Your task to perform on an android device: Do I have any events today? Image 0: 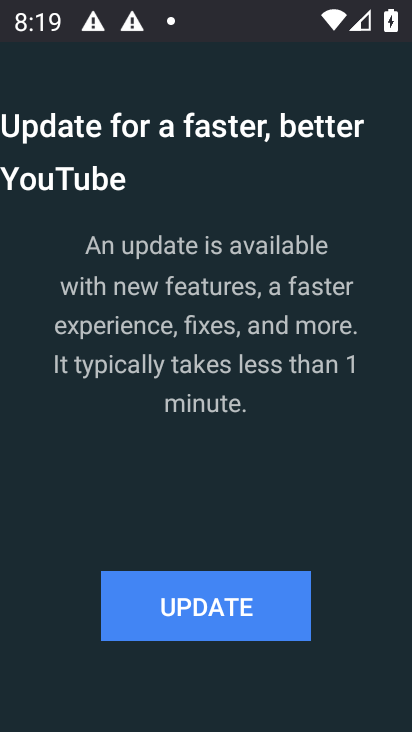
Step 0: press home button
Your task to perform on an android device: Do I have any events today? Image 1: 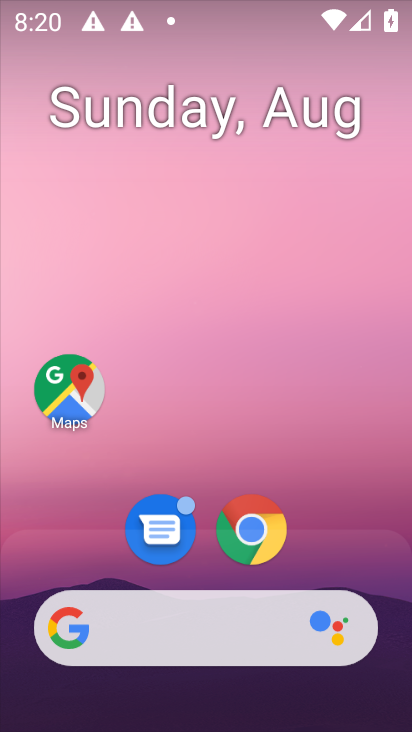
Step 1: drag from (201, 573) to (224, 15)
Your task to perform on an android device: Do I have any events today? Image 2: 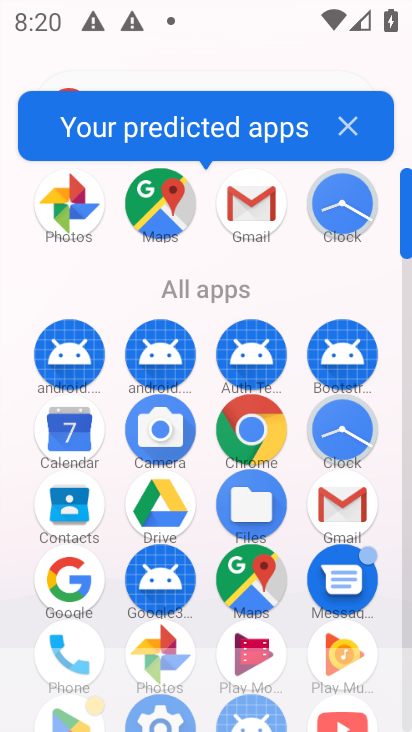
Step 2: click (74, 442)
Your task to perform on an android device: Do I have any events today? Image 3: 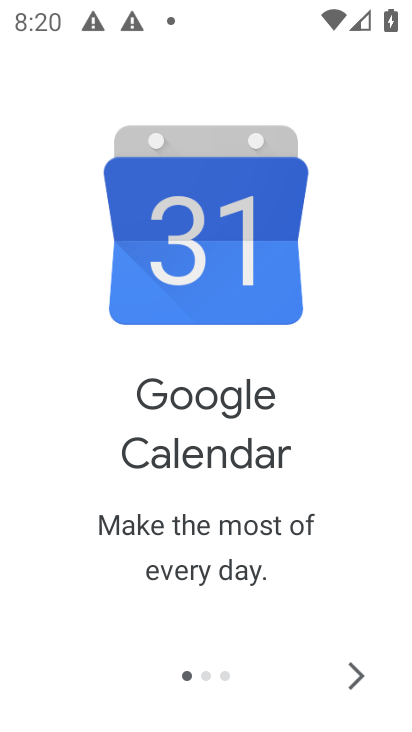
Step 3: click (346, 670)
Your task to perform on an android device: Do I have any events today? Image 4: 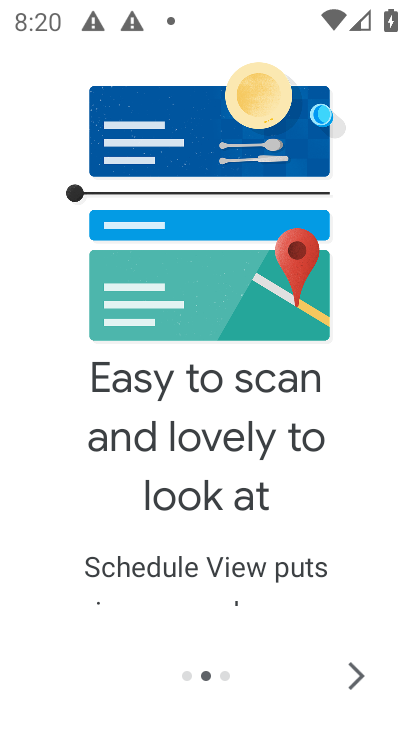
Step 4: click (347, 670)
Your task to perform on an android device: Do I have any events today? Image 5: 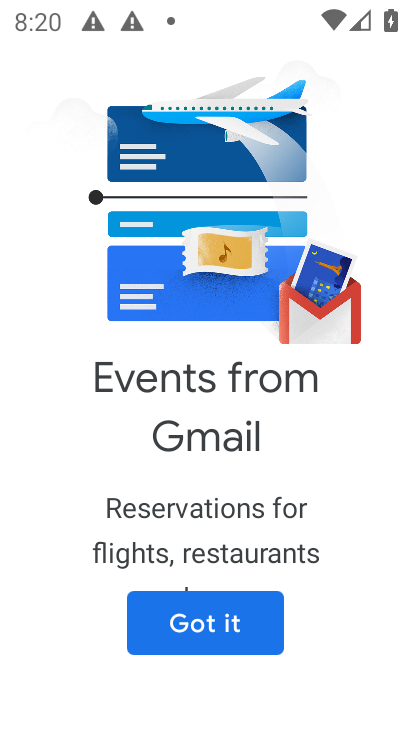
Step 5: click (209, 620)
Your task to perform on an android device: Do I have any events today? Image 6: 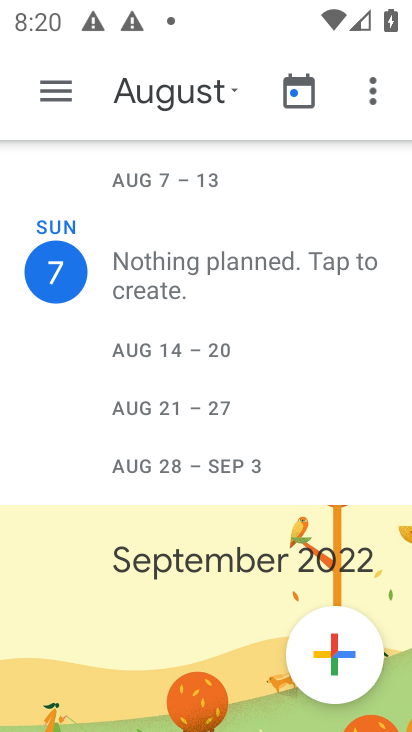
Step 6: click (59, 93)
Your task to perform on an android device: Do I have any events today? Image 7: 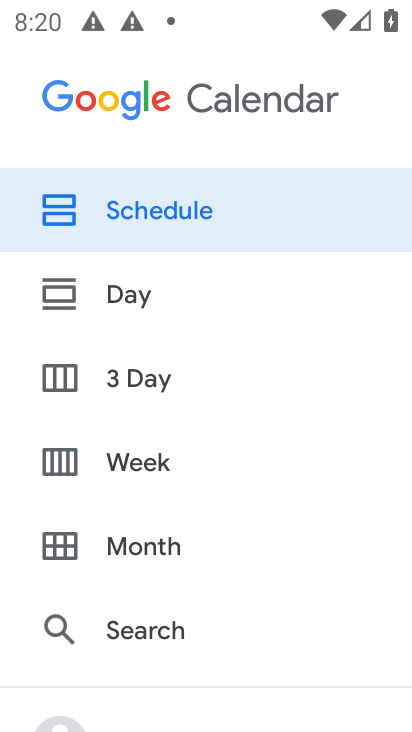
Step 7: drag from (134, 558) to (232, 46)
Your task to perform on an android device: Do I have any events today? Image 8: 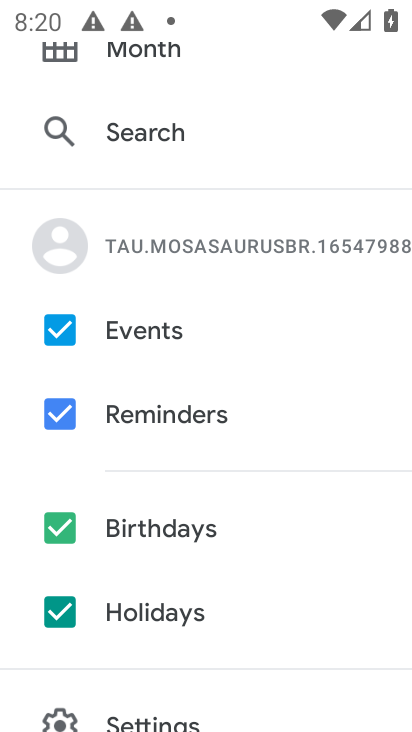
Step 8: click (114, 393)
Your task to perform on an android device: Do I have any events today? Image 9: 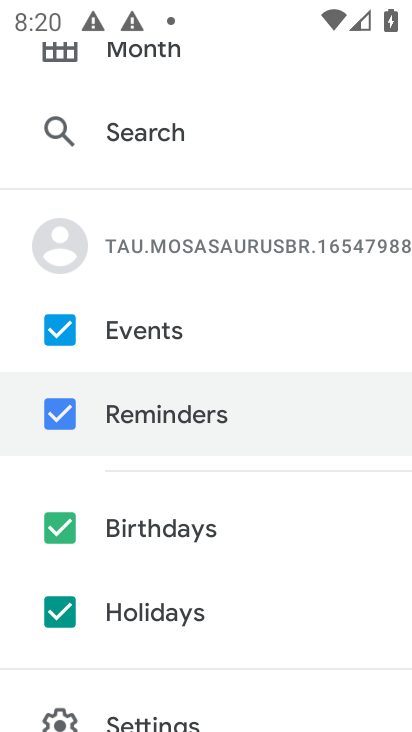
Step 9: click (117, 499)
Your task to perform on an android device: Do I have any events today? Image 10: 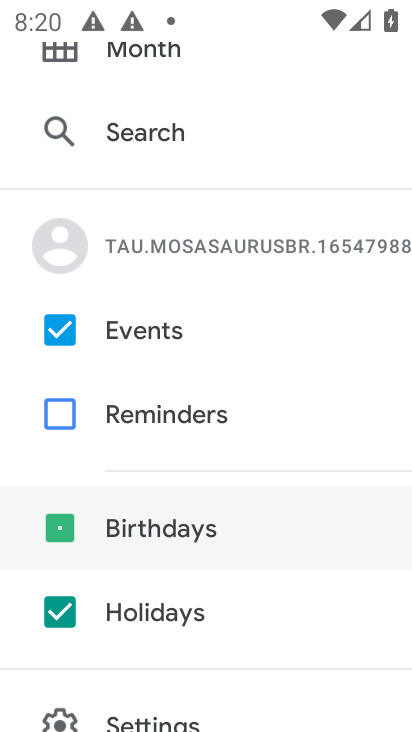
Step 10: click (123, 601)
Your task to perform on an android device: Do I have any events today? Image 11: 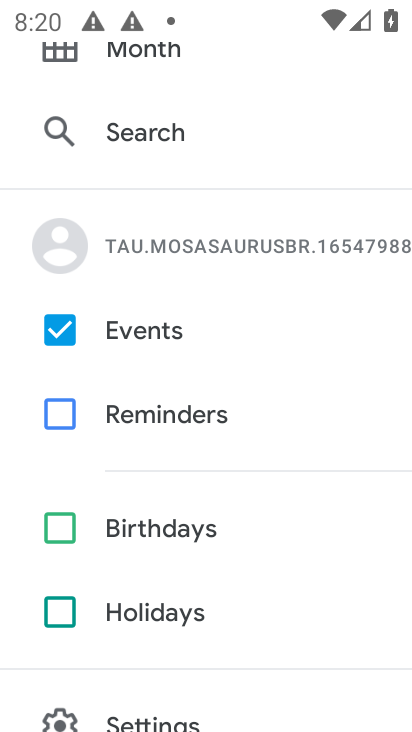
Step 11: drag from (244, 210) to (250, 672)
Your task to perform on an android device: Do I have any events today? Image 12: 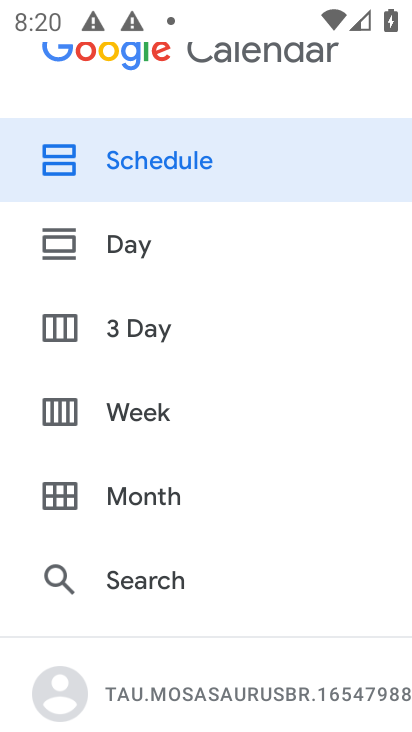
Step 12: click (149, 254)
Your task to perform on an android device: Do I have any events today? Image 13: 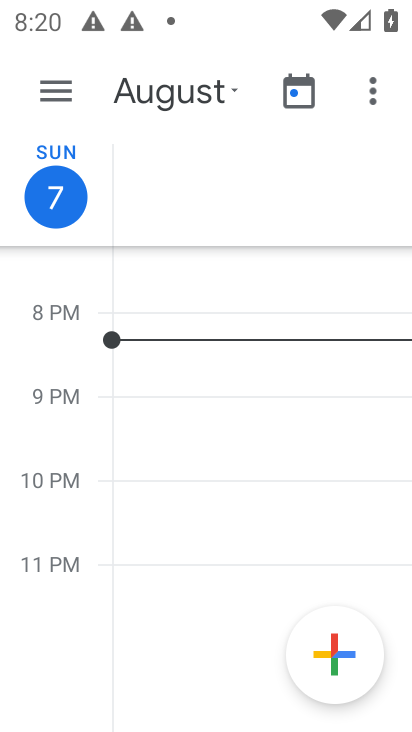
Step 13: task complete